Your task to perform on an android device: Go to eBay Image 0: 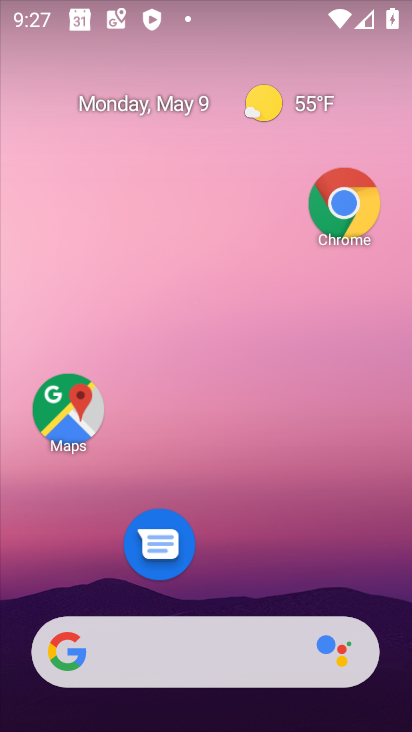
Step 0: click (356, 193)
Your task to perform on an android device: Go to eBay Image 1: 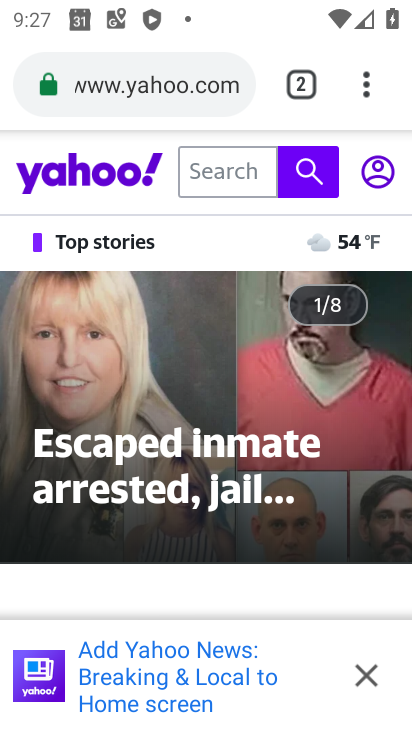
Step 1: click (288, 89)
Your task to perform on an android device: Go to eBay Image 2: 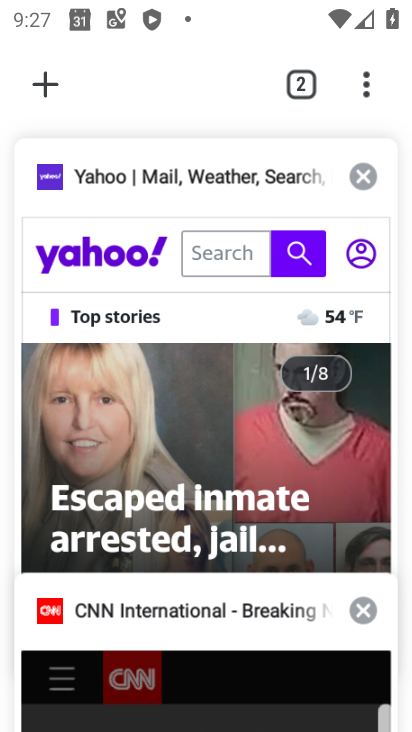
Step 2: click (37, 76)
Your task to perform on an android device: Go to eBay Image 3: 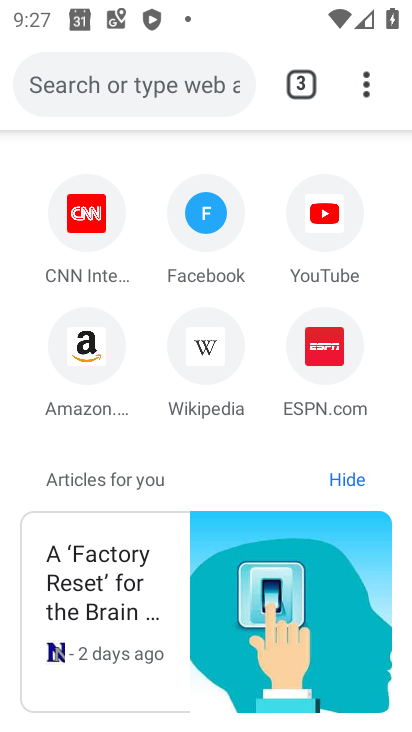
Step 3: click (177, 91)
Your task to perform on an android device: Go to eBay Image 4: 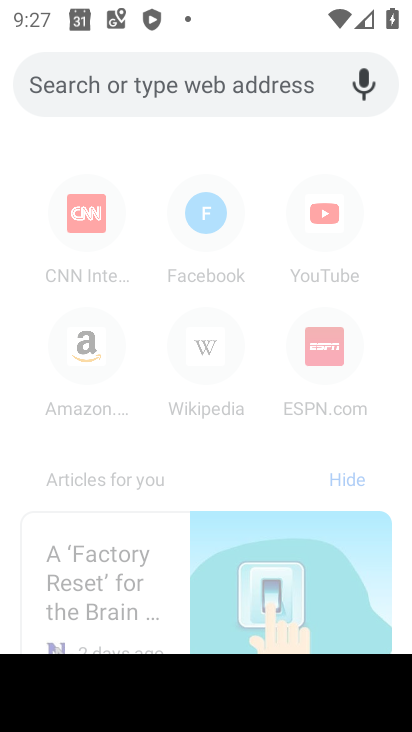
Step 4: type "eBay"
Your task to perform on an android device: Go to eBay Image 5: 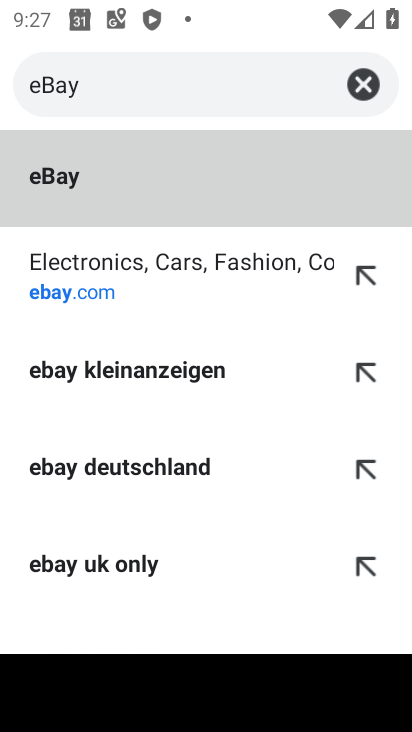
Step 5: click (144, 184)
Your task to perform on an android device: Go to eBay Image 6: 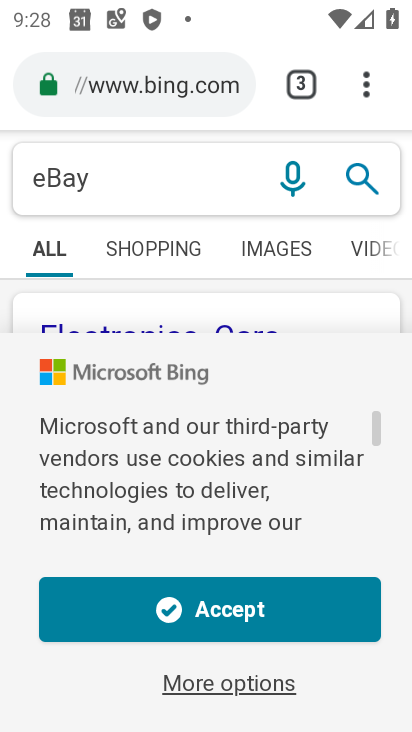
Step 6: task complete